Your task to perform on an android device: turn on the 12-hour format for clock Image 0: 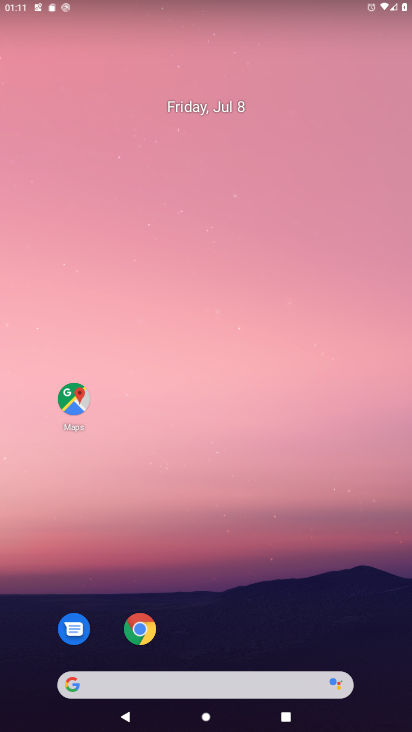
Step 0: drag from (270, 599) to (321, 12)
Your task to perform on an android device: turn on the 12-hour format for clock Image 1: 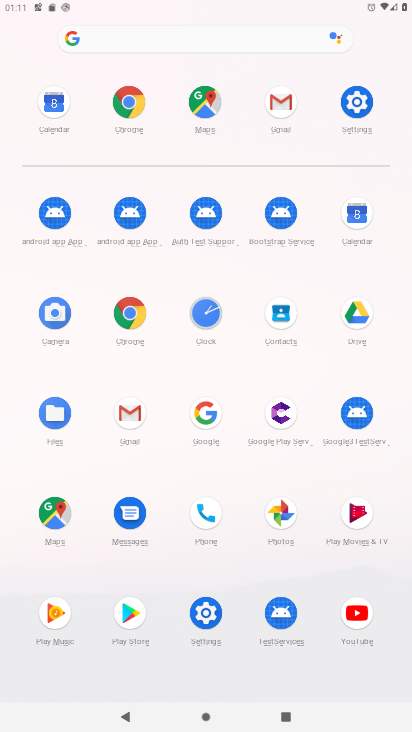
Step 1: click (202, 318)
Your task to perform on an android device: turn on the 12-hour format for clock Image 2: 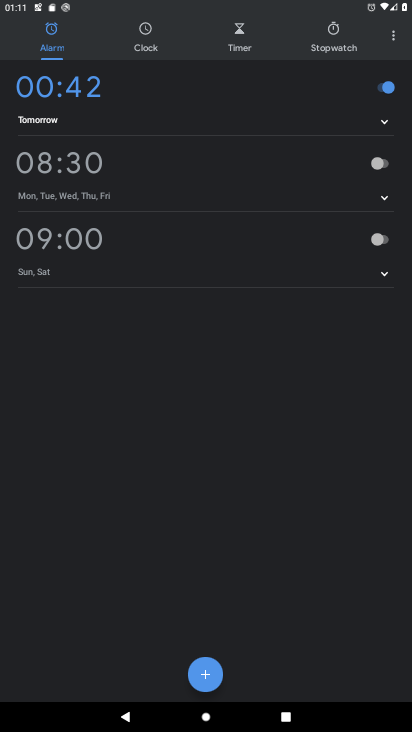
Step 2: click (394, 34)
Your task to perform on an android device: turn on the 12-hour format for clock Image 3: 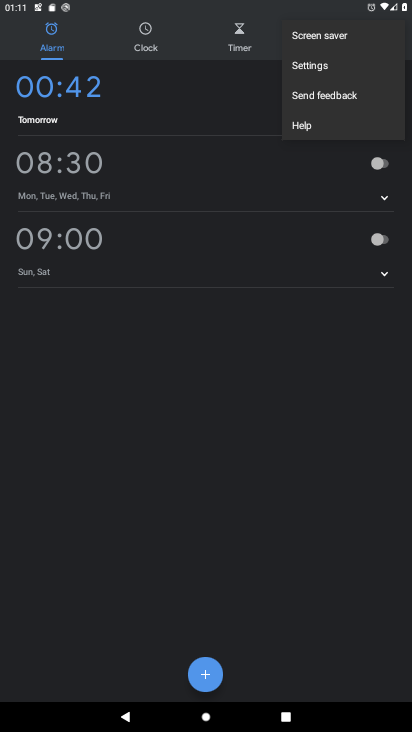
Step 3: click (354, 61)
Your task to perform on an android device: turn on the 12-hour format for clock Image 4: 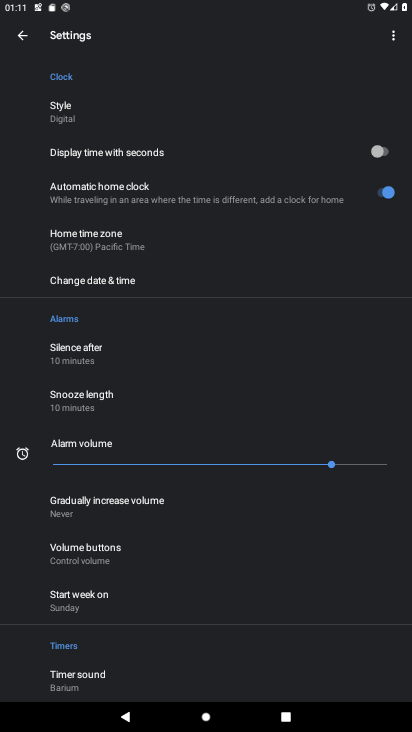
Step 4: click (119, 268)
Your task to perform on an android device: turn on the 12-hour format for clock Image 5: 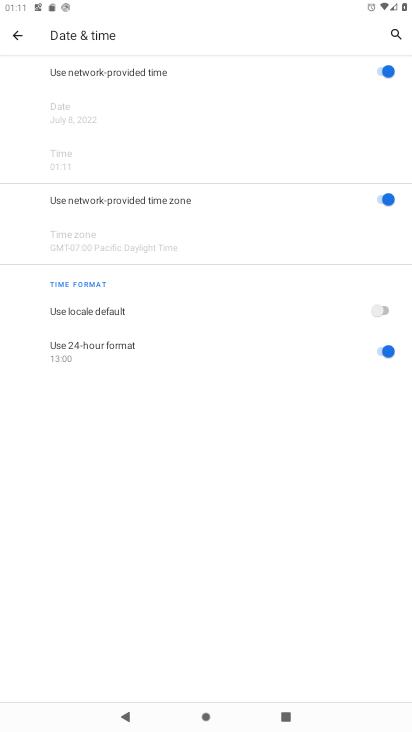
Step 5: click (119, 268)
Your task to perform on an android device: turn on the 12-hour format for clock Image 6: 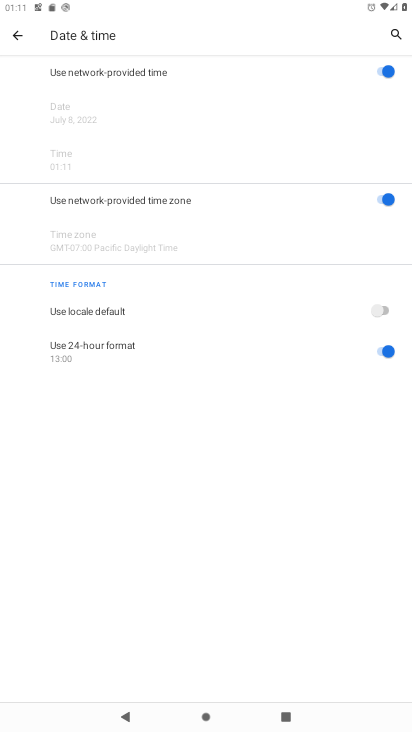
Step 6: click (382, 310)
Your task to perform on an android device: turn on the 12-hour format for clock Image 7: 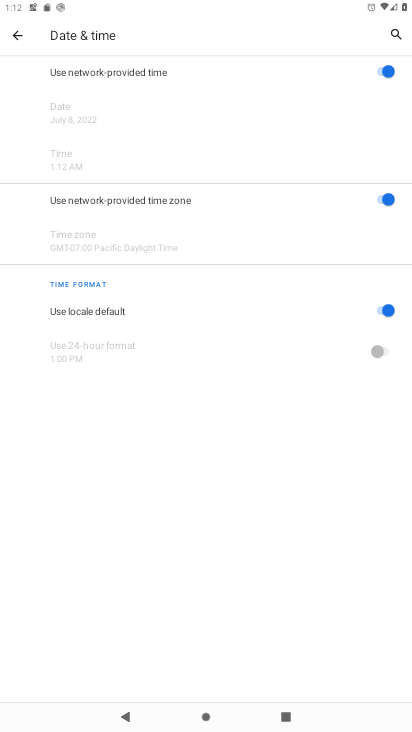
Step 7: task complete